Your task to perform on an android device: open a new tab in the chrome app Image 0: 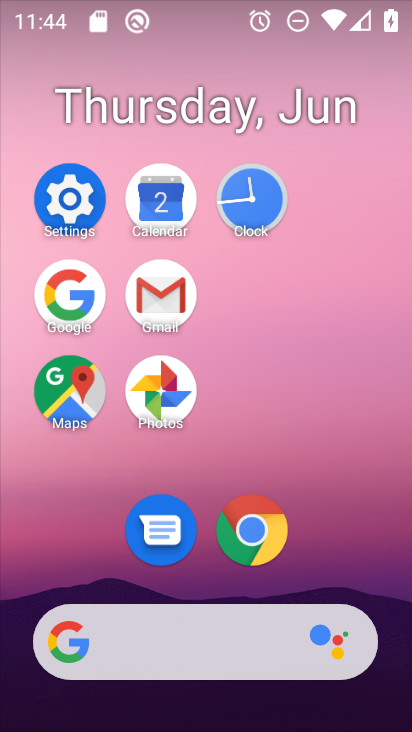
Step 0: click (255, 531)
Your task to perform on an android device: open a new tab in the chrome app Image 1: 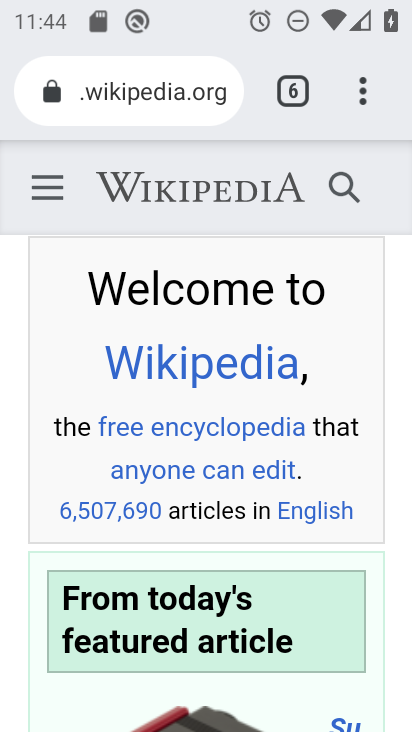
Step 1: click (290, 88)
Your task to perform on an android device: open a new tab in the chrome app Image 2: 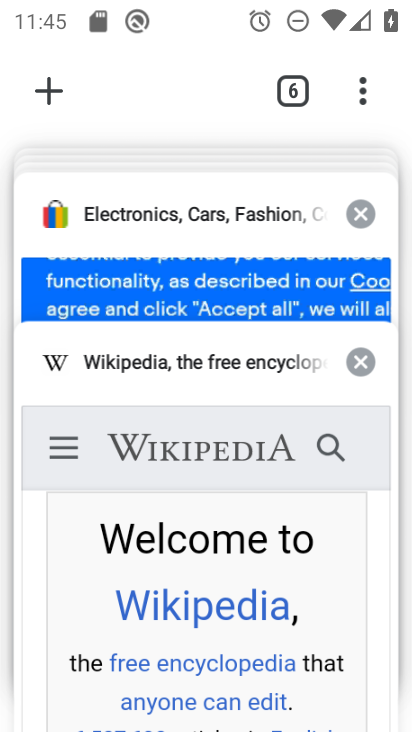
Step 2: click (37, 97)
Your task to perform on an android device: open a new tab in the chrome app Image 3: 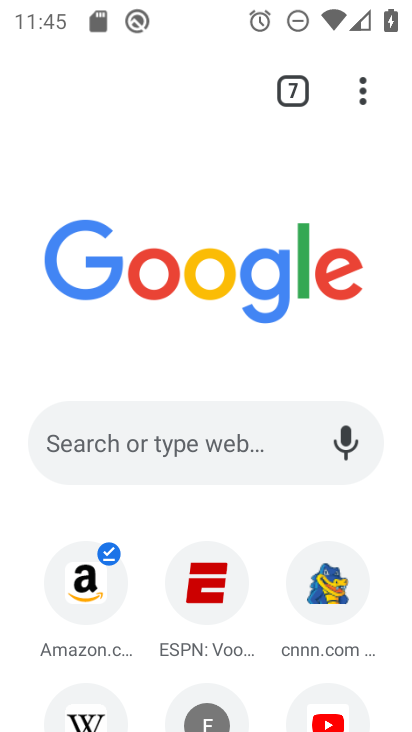
Step 3: task complete